Your task to perform on an android device: Open Amazon Image 0: 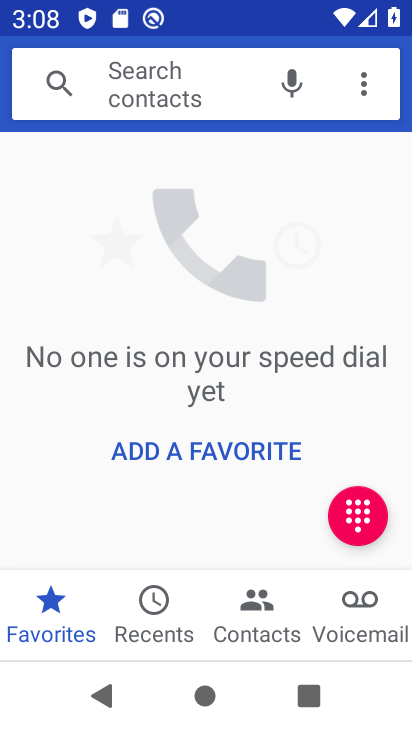
Step 0: press home button
Your task to perform on an android device: Open Amazon Image 1: 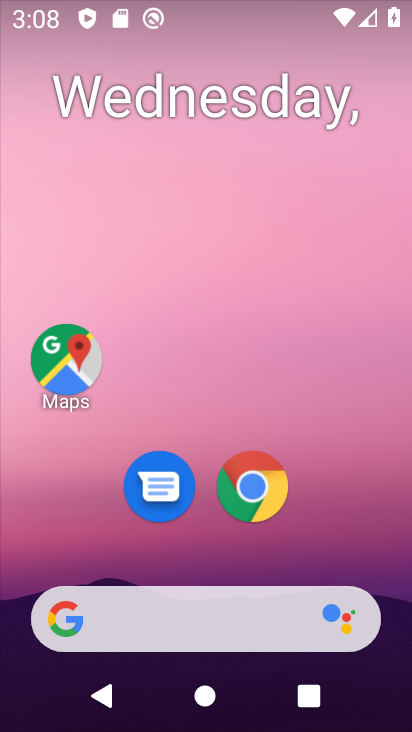
Step 1: click (258, 490)
Your task to perform on an android device: Open Amazon Image 2: 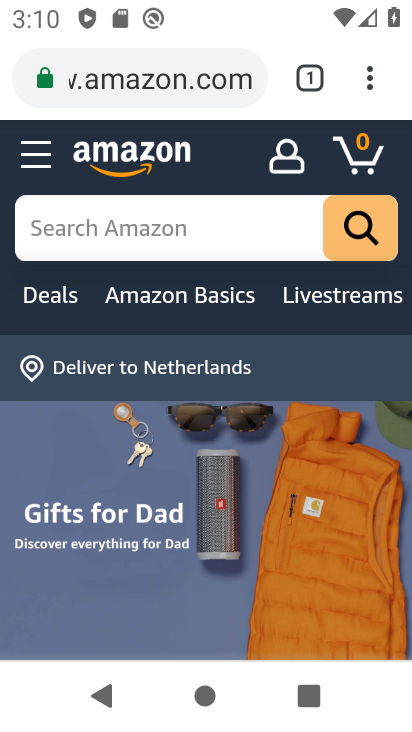
Step 2: task complete